Your task to perform on an android device: Go to battery settings Image 0: 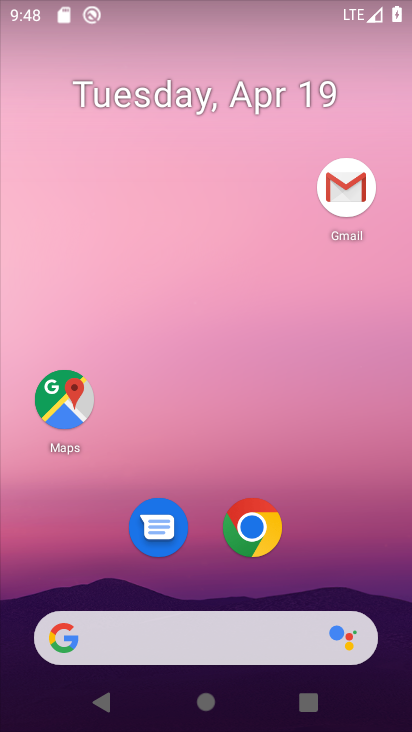
Step 0: drag from (349, 504) to (351, 124)
Your task to perform on an android device: Go to battery settings Image 1: 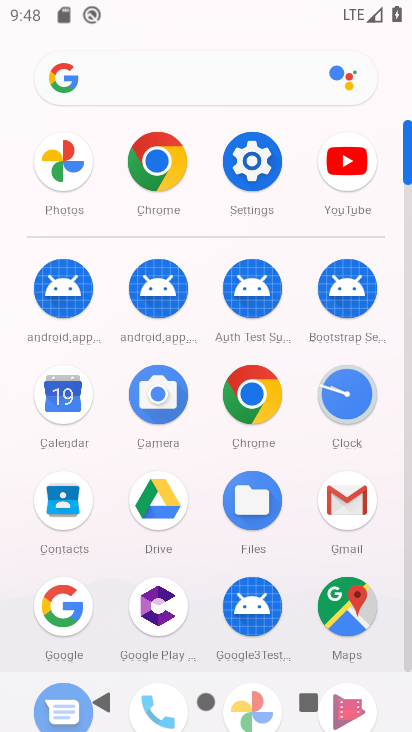
Step 1: click (250, 177)
Your task to perform on an android device: Go to battery settings Image 2: 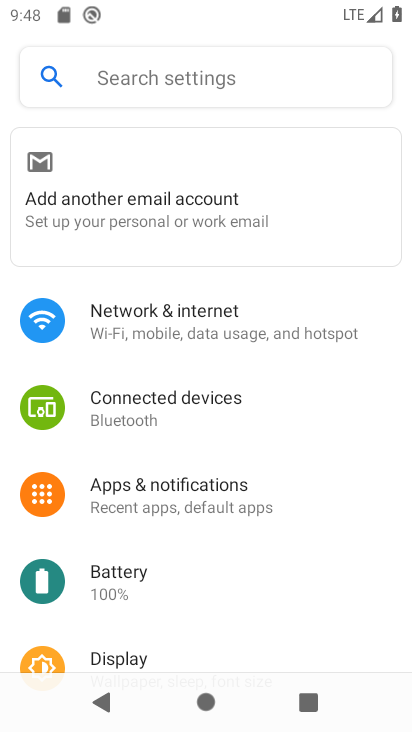
Step 2: click (135, 570)
Your task to perform on an android device: Go to battery settings Image 3: 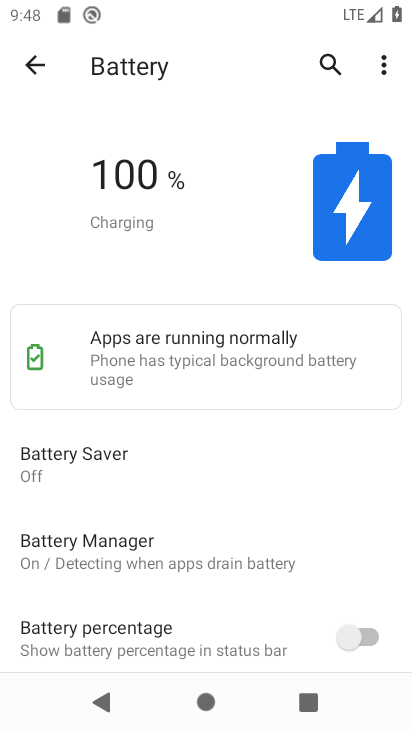
Step 3: task complete